Your task to perform on an android device: Open notification settings Image 0: 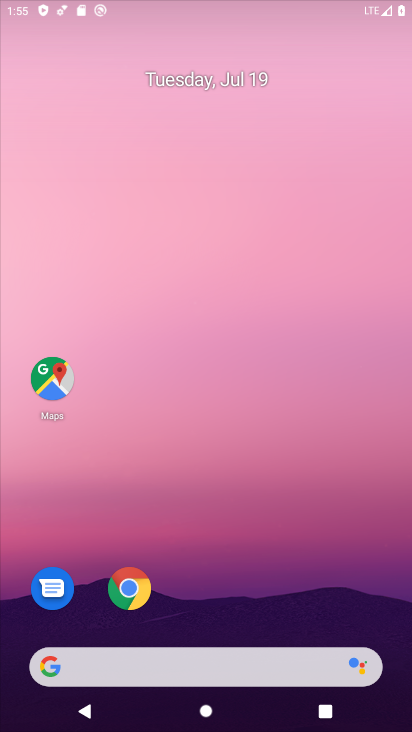
Step 0: click (262, 561)
Your task to perform on an android device: Open notification settings Image 1: 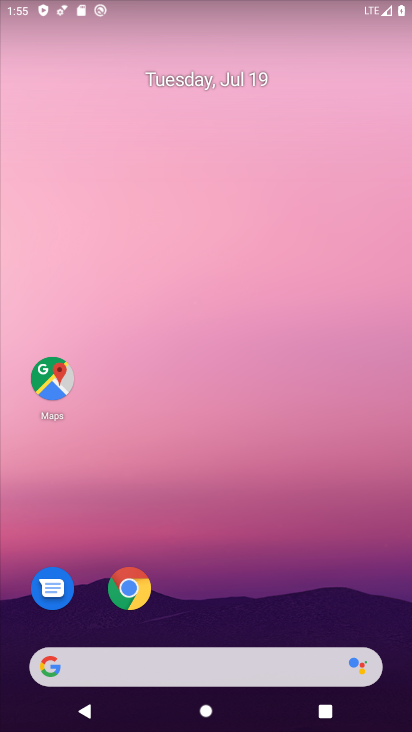
Step 1: drag from (262, 561) to (217, 117)
Your task to perform on an android device: Open notification settings Image 2: 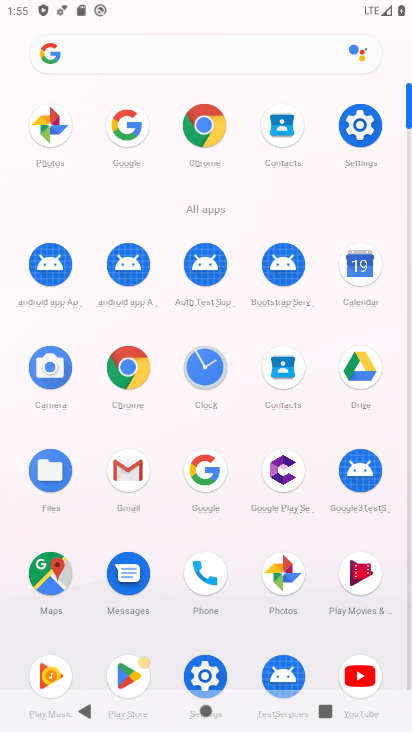
Step 2: click (354, 123)
Your task to perform on an android device: Open notification settings Image 3: 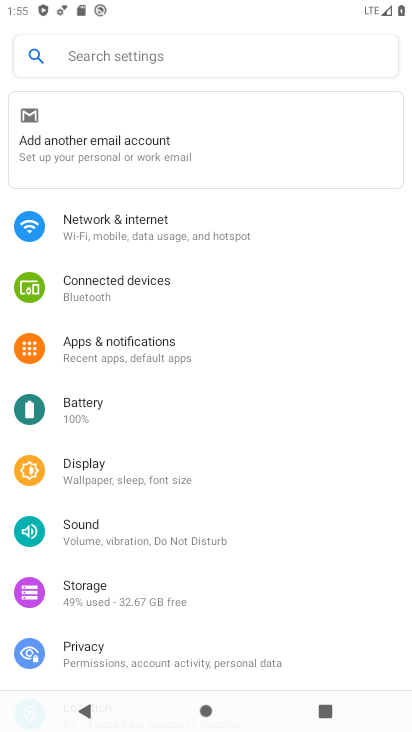
Step 3: click (120, 337)
Your task to perform on an android device: Open notification settings Image 4: 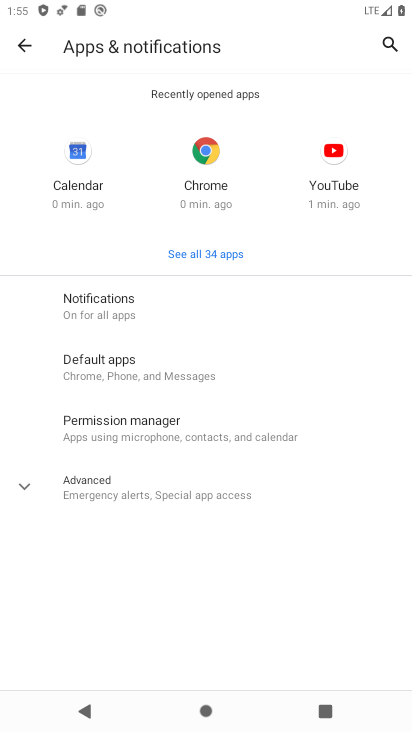
Step 4: task complete